Your task to perform on an android device: add a label to a message in the gmail app Image 0: 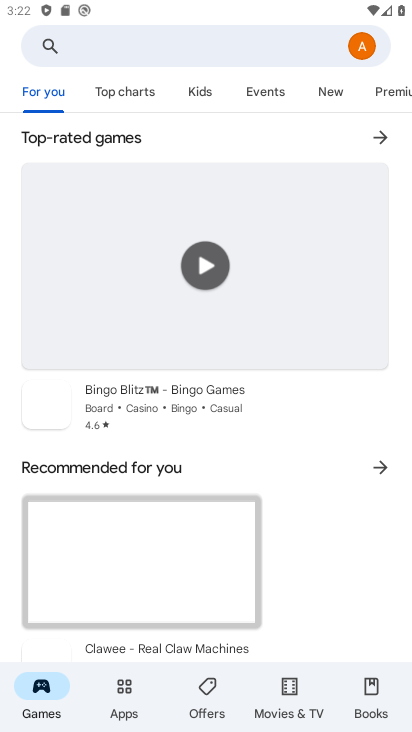
Step 0: press home button
Your task to perform on an android device: add a label to a message in the gmail app Image 1: 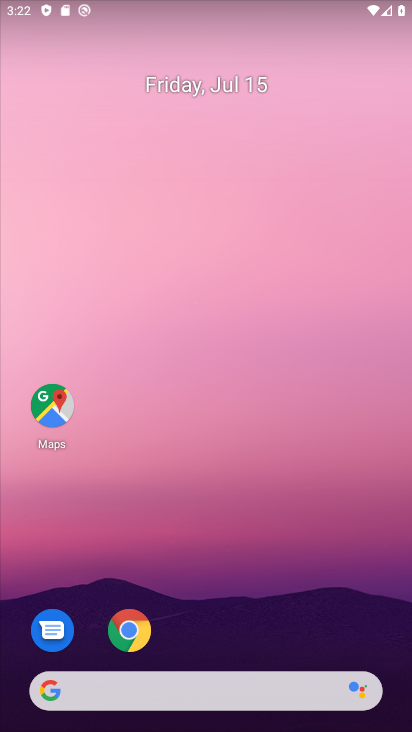
Step 1: drag from (256, 684) to (207, 115)
Your task to perform on an android device: add a label to a message in the gmail app Image 2: 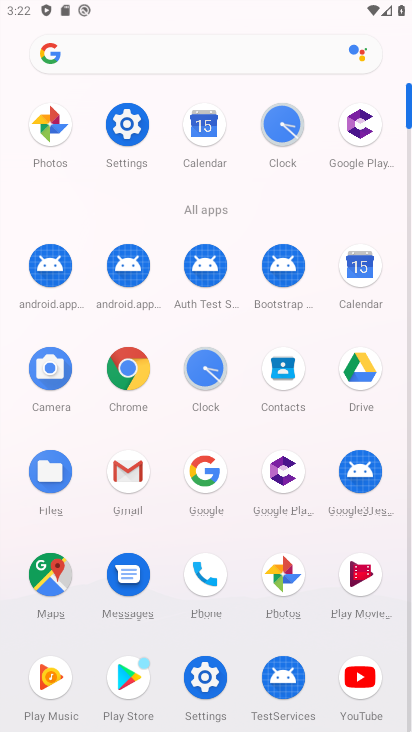
Step 2: click (128, 484)
Your task to perform on an android device: add a label to a message in the gmail app Image 3: 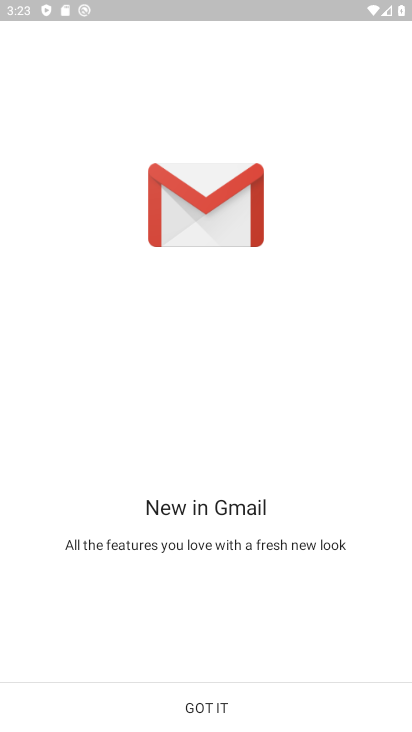
Step 3: click (200, 686)
Your task to perform on an android device: add a label to a message in the gmail app Image 4: 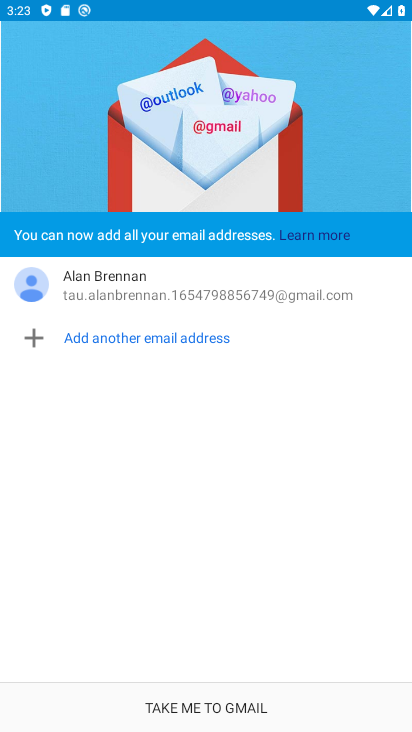
Step 4: click (206, 706)
Your task to perform on an android device: add a label to a message in the gmail app Image 5: 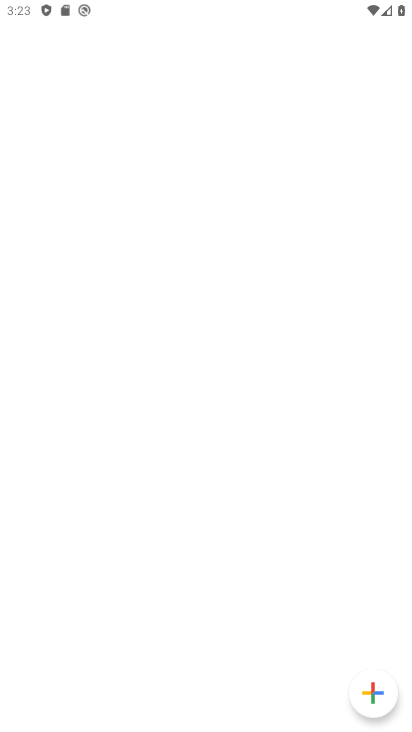
Step 5: click (206, 706)
Your task to perform on an android device: add a label to a message in the gmail app Image 6: 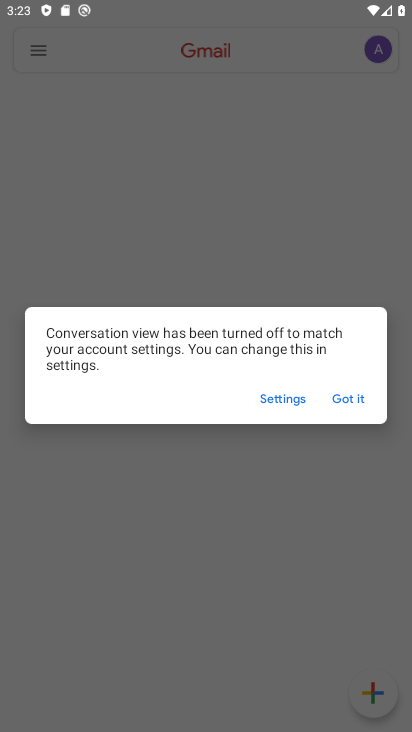
Step 6: click (344, 395)
Your task to perform on an android device: add a label to a message in the gmail app Image 7: 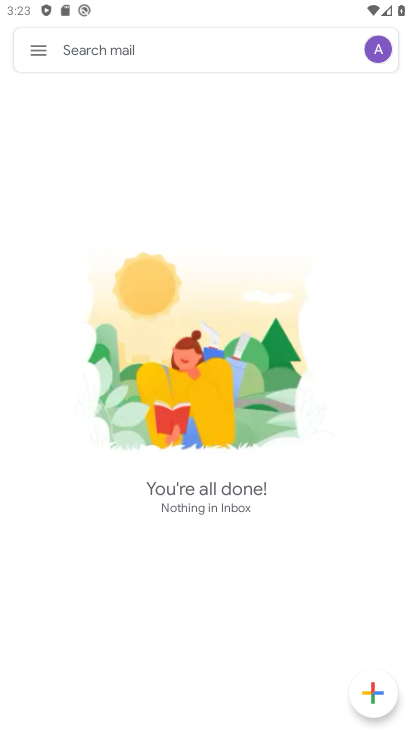
Step 7: task complete